Your task to perform on an android device: check storage Image 0: 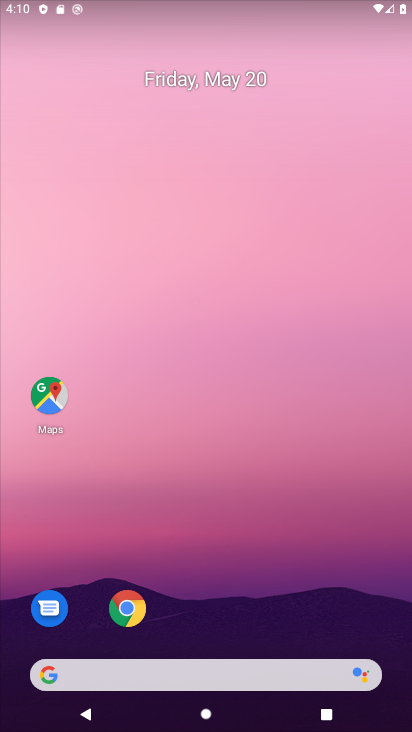
Step 0: drag from (227, 651) to (190, 122)
Your task to perform on an android device: check storage Image 1: 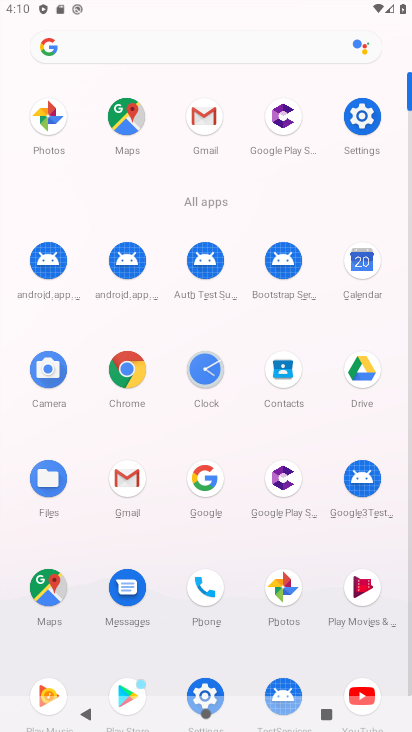
Step 1: click (355, 123)
Your task to perform on an android device: check storage Image 2: 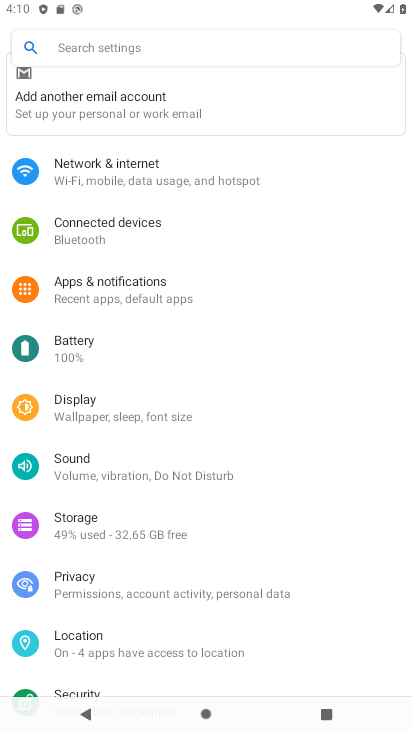
Step 2: click (84, 518)
Your task to perform on an android device: check storage Image 3: 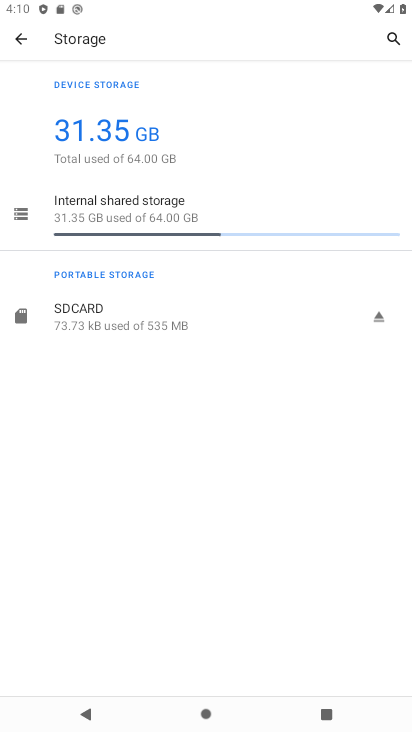
Step 3: click (130, 224)
Your task to perform on an android device: check storage Image 4: 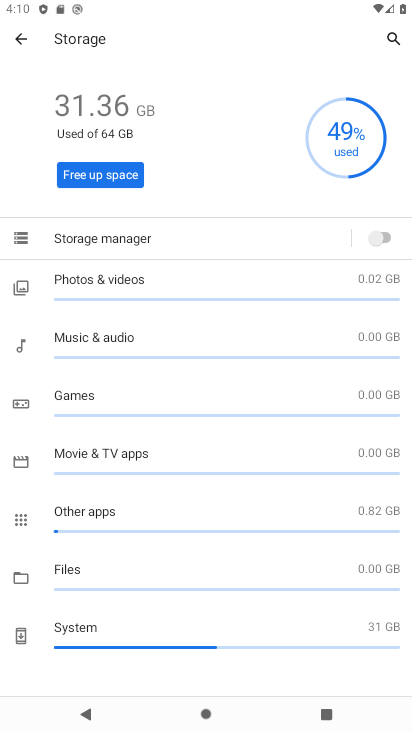
Step 4: task complete